Your task to perform on an android device: Check the news Image 0: 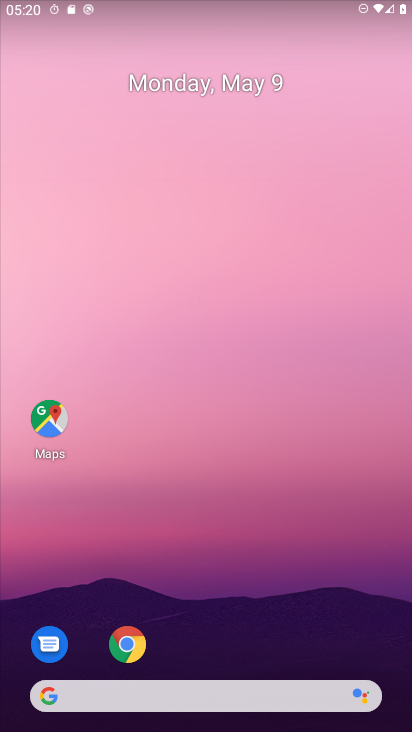
Step 0: drag from (244, 613) to (228, 23)
Your task to perform on an android device: Check the news Image 1: 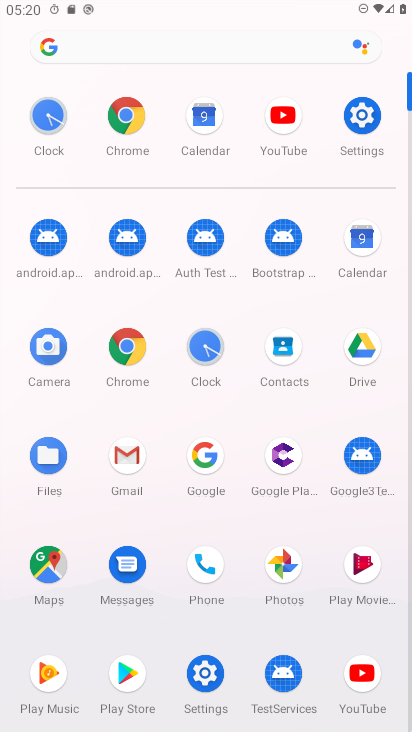
Step 1: click (201, 452)
Your task to perform on an android device: Check the news Image 2: 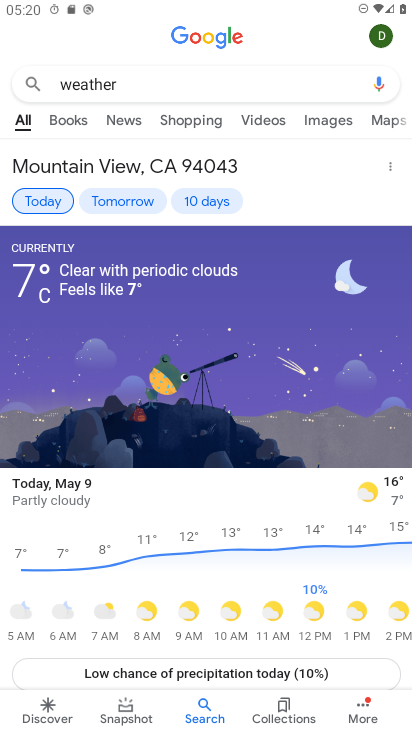
Step 2: click (162, 80)
Your task to perform on an android device: Check the news Image 3: 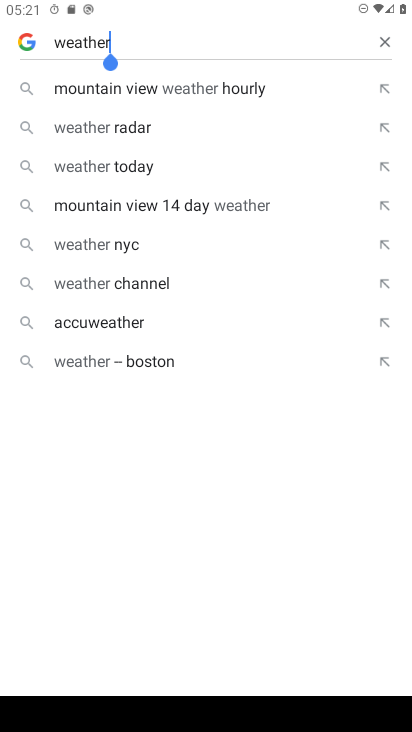
Step 3: click (386, 44)
Your task to perform on an android device: Check the news Image 4: 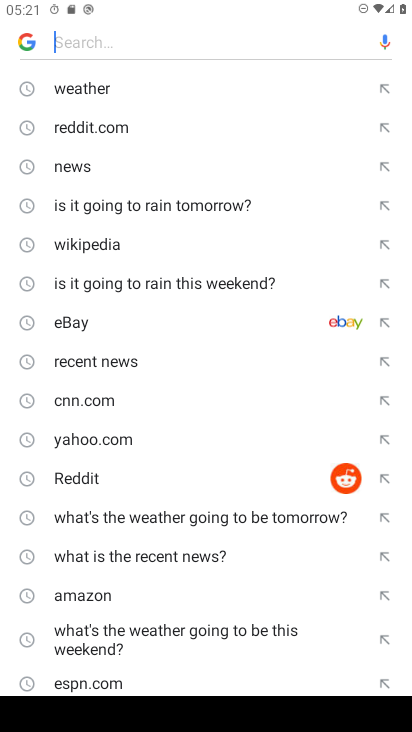
Step 4: click (86, 171)
Your task to perform on an android device: Check the news Image 5: 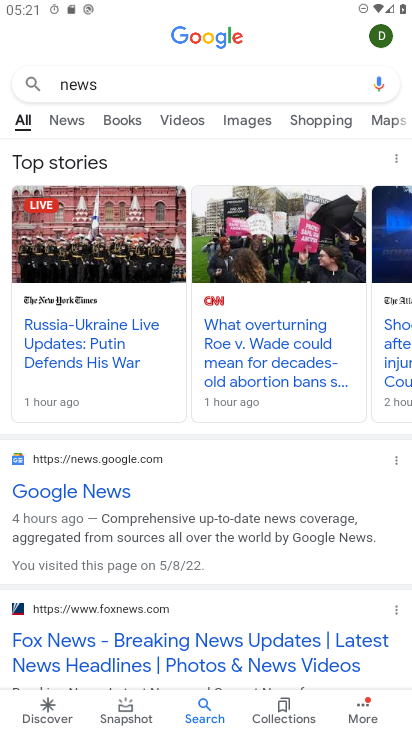
Step 5: task complete